Your task to perform on an android device: turn off location Image 0: 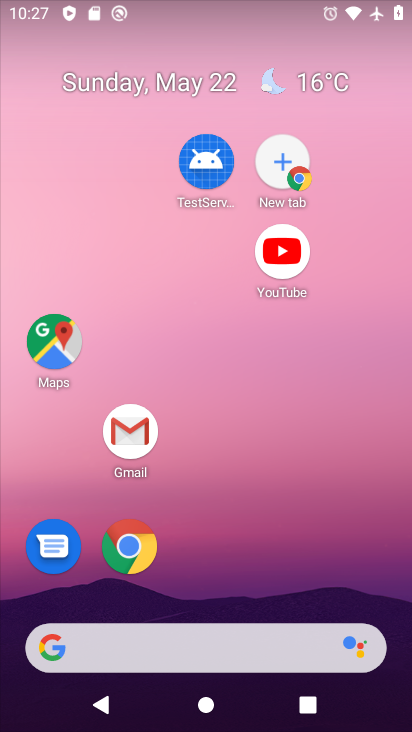
Step 0: drag from (249, 718) to (209, 123)
Your task to perform on an android device: turn off location Image 1: 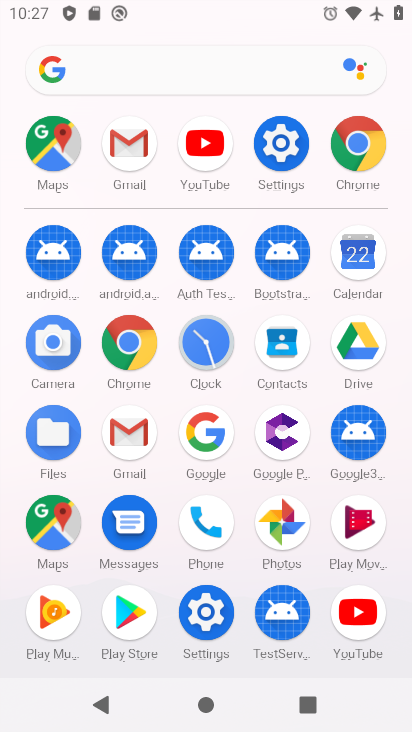
Step 1: click (276, 146)
Your task to perform on an android device: turn off location Image 2: 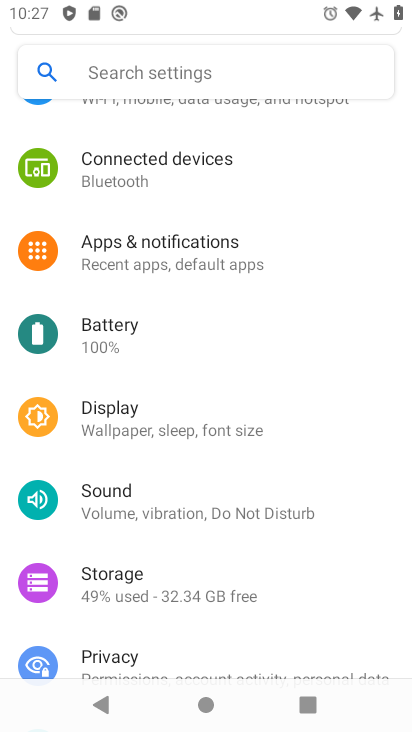
Step 2: drag from (174, 478) to (211, 4)
Your task to perform on an android device: turn off location Image 3: 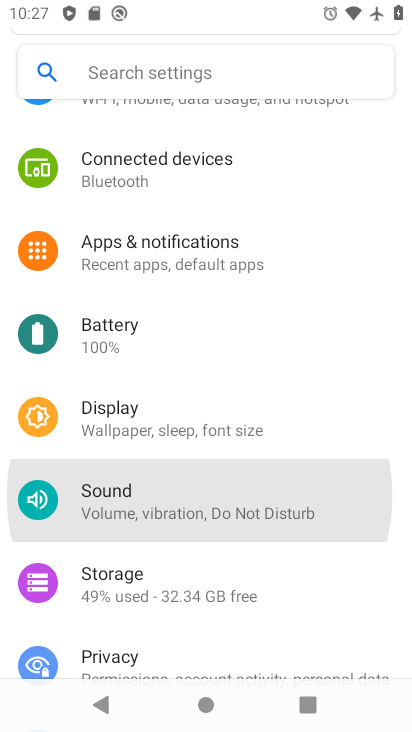
Step 3: drag from (175, 478) to (164, 101)
Your task to perform on an android device: turn off location Image 4: 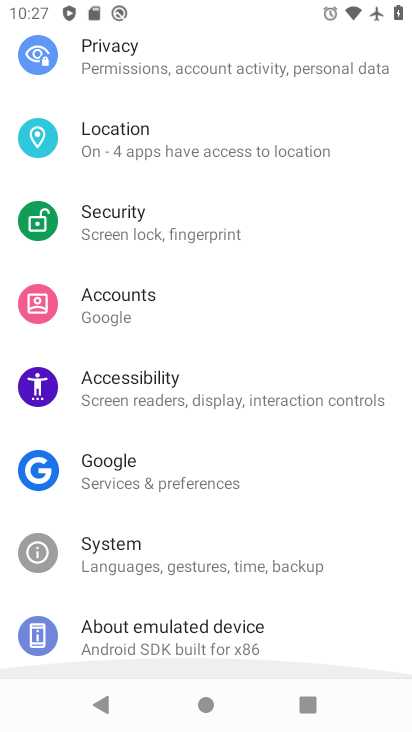
Step 4: drag from (186, 468) to (183, 80)
Your task to perform on an android device: turn off location Image 5: 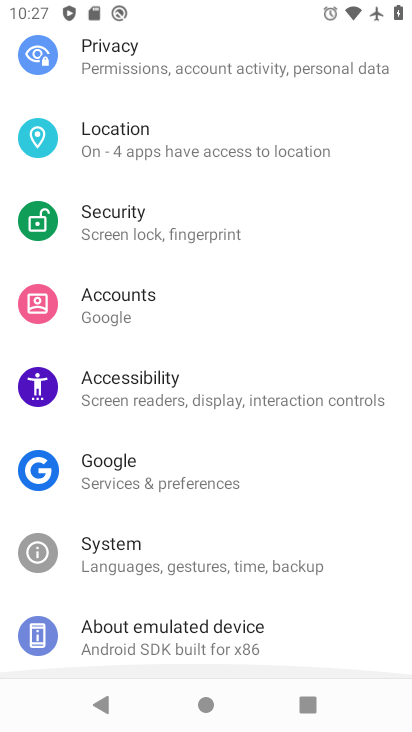
Step 5: drag from (195, 603) to (183, 158)
Your task to perform on an android device: turn off location Image 6: 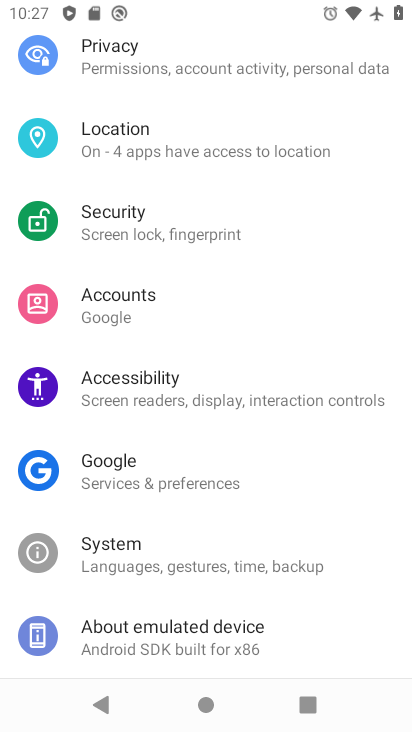
Step 6: click (129, 142)
Your task to perform on an android device: turn off location Image 7: 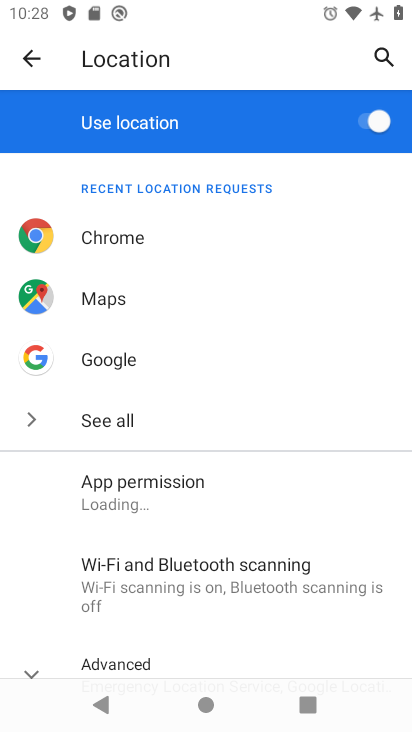
Step 7: task complete